Your task to perform on an android device: Go to internet settings Image 0: 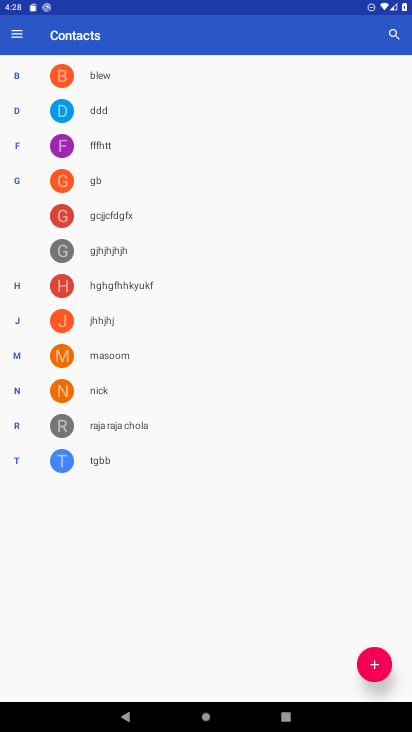
Step 0: press home button
Your task to perform on an android device: Go to internet settings Image 1: 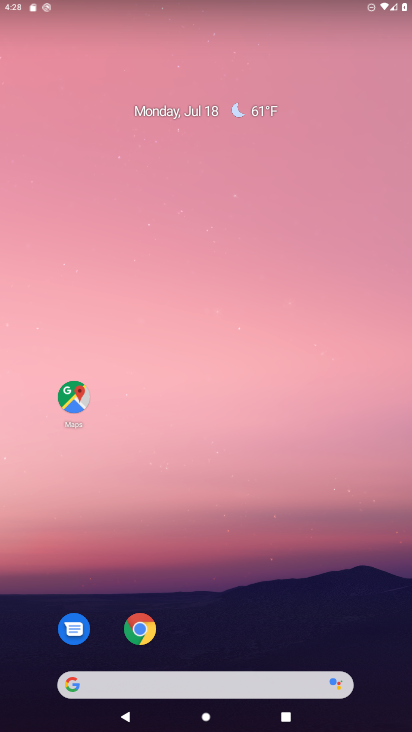
Step 1: drag from (195, 660) to (305, 171)
Your task to perform on an android device: Go to internet settings Image 2: 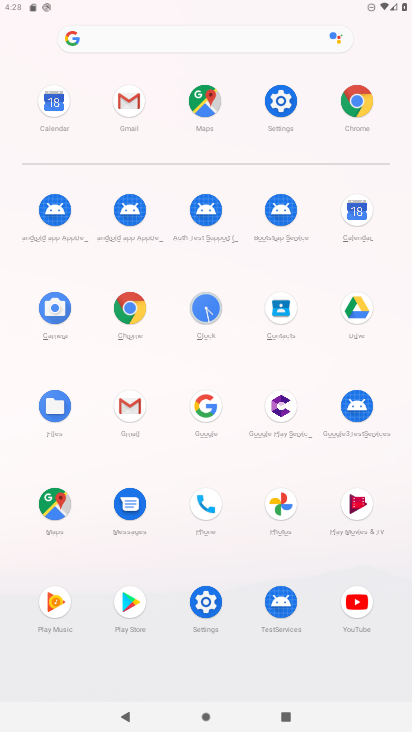
Step 2: click (281, 104)
Your task to perform on an android device: Go to internet settings Image 3: 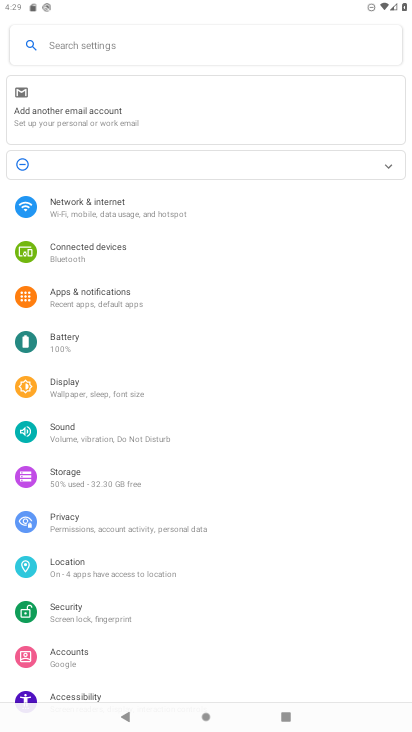
Step 3: click (70, 201)
Your task to perform on an android device: Go to internet settings Image 4: 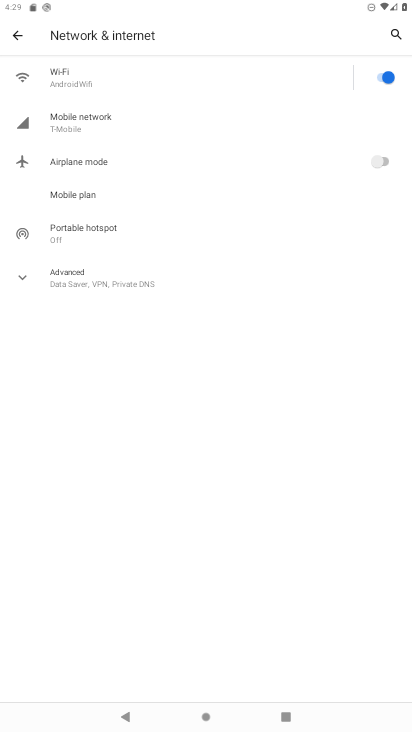
Step 4: click (81, 272)
Your task to perform on an android device: Go to internet settings Image 5: 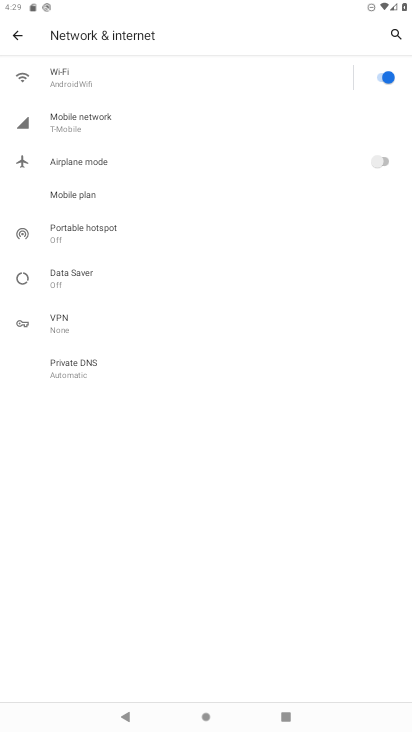
Step 5: task complete